Your task to perform on an android device: turn on translation in the chrome app Image 0: 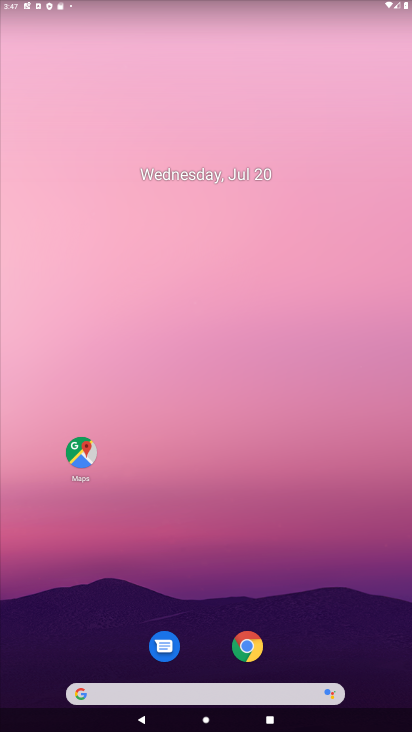
Step 0: click (250, 638)
Your task to perform on an android device: turn on translation in the chrome app Image 1: 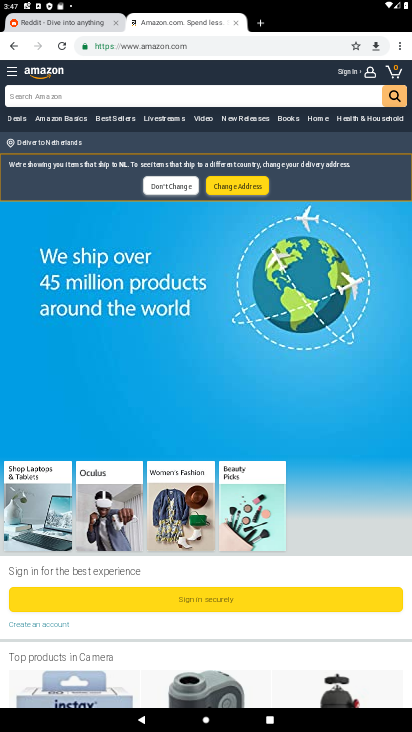
Step 1: click (400, 50)
Your task to perform on an android device: turn on translation in the chrome app Image 2: 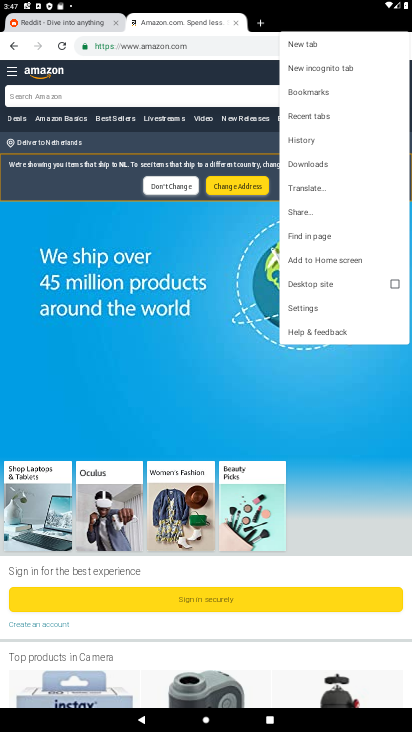
Step 2: click (330, 307)
Your task to perform on an android device: turn on translation in the chrome app Image 3: 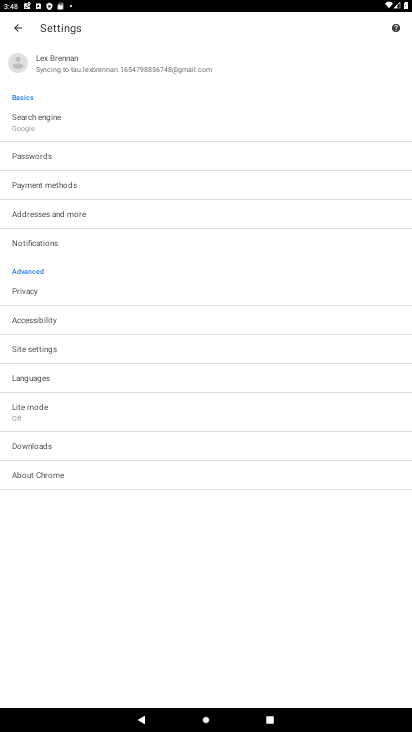
Step 3: click (53, 379)
Your task to perform on an android device: turn on translation in the chrome app Image 4: 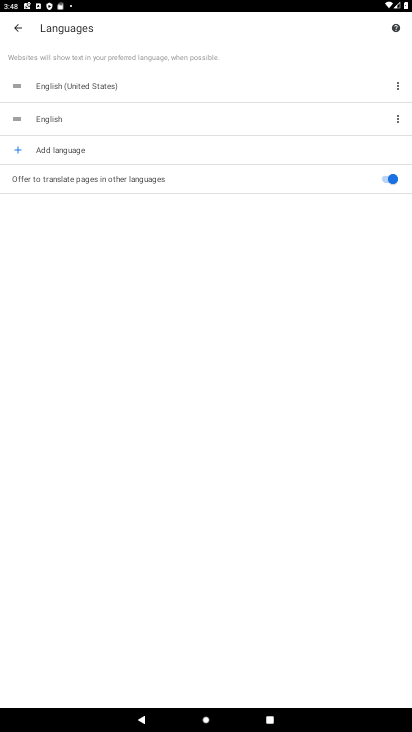
Step 4: task complete